Your task to perform on an android device: Open internet settings Image 0: 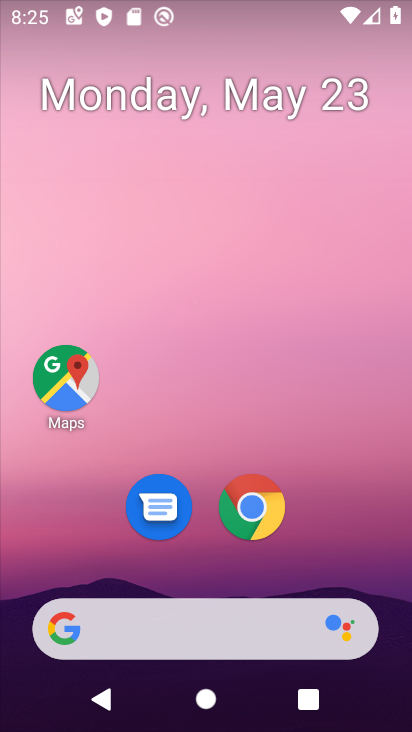
Step 0: drag from (355, 558) to (367, 115)
Your task to perform on an android device: Open internet settings Image 1: 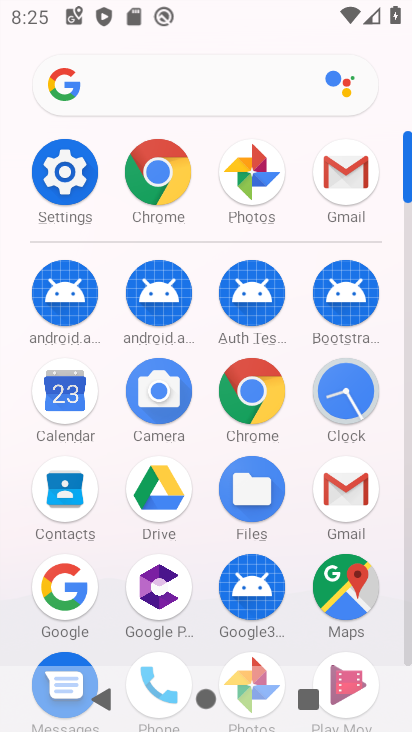
Step 1: click (54, 165)
Your task to perform on an android device: Open internet settings Image 2: 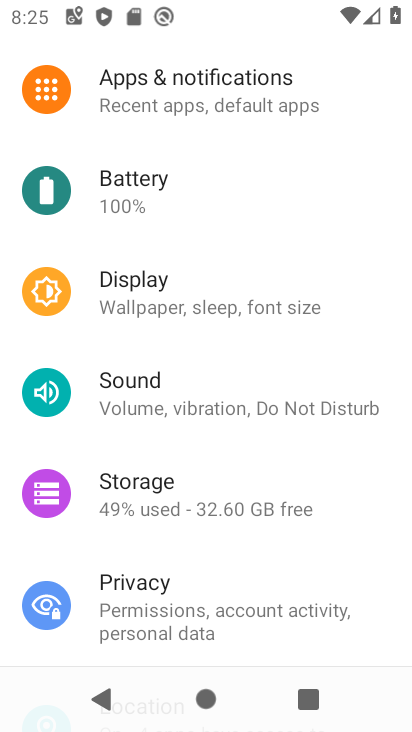
Step 2: drag from (166, 116) to (240, 606)
Your task to perform on an android device: Open internet settings Image 3: 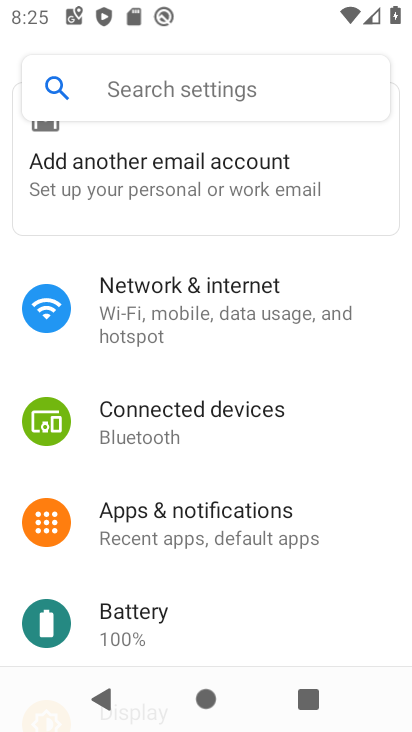
Step 3: click (219, 313)
Your task to perform on an android device: Open internet settings Image 4: 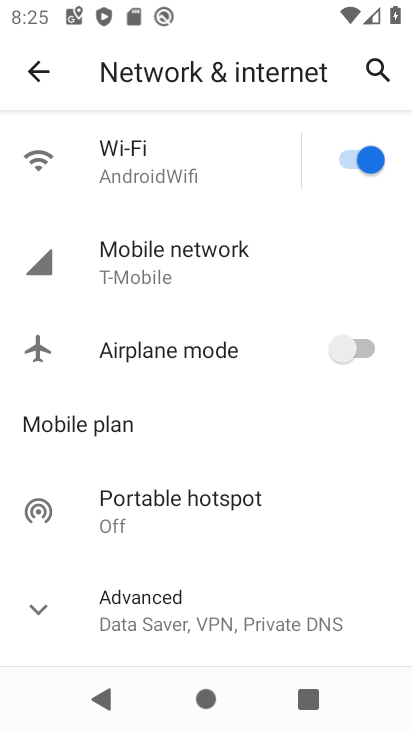
Step 4: task complete